Your task to perform on an android device: snooze an email in the gmail app Image 0: 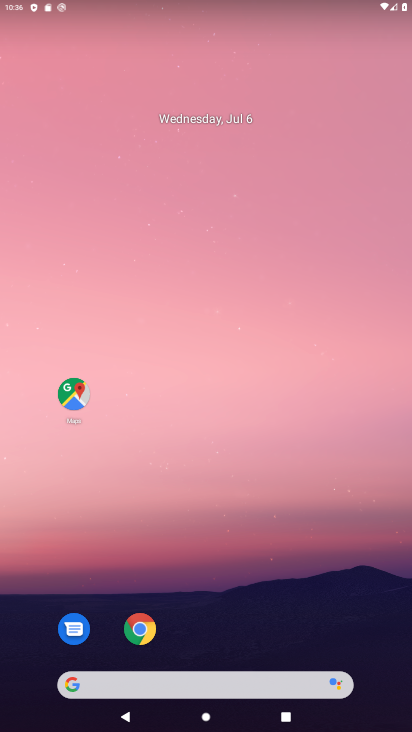
Step 0: drag from (230, 641) to (236, 7)
Your task to perform on an android device: snooze an email in the gmail app Image 1: 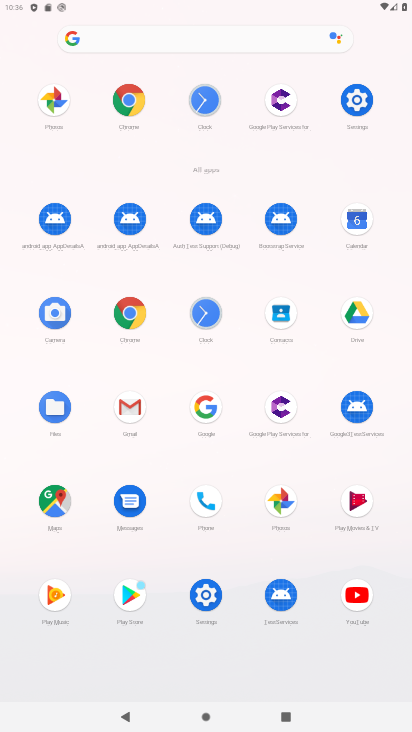
Step 1: click (131, 403)
Your task to perform on an android device: snooze an email in the gmail app Image 2: 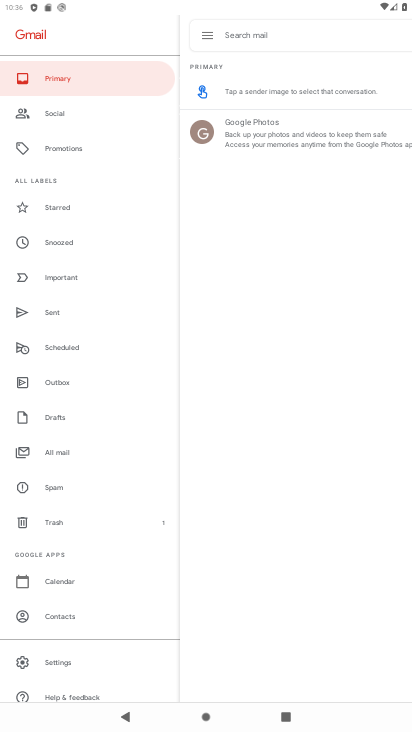
Step 2: click (202, 131)
Your task to perform on an android device: snooze an email in the gmail app Image 3: 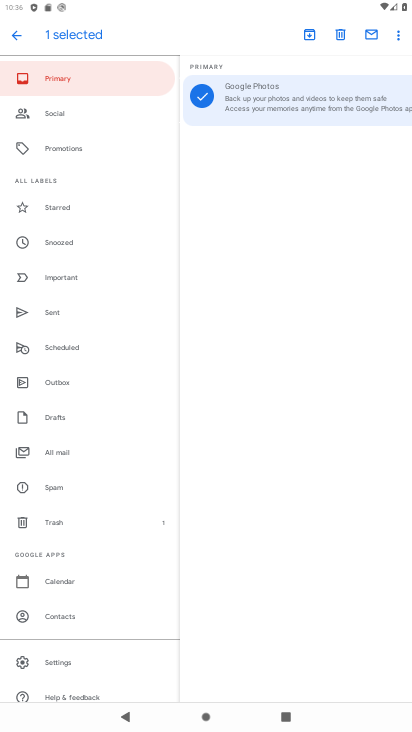
Step 3: click (398, 36)
Your task to perform on an android device: snooze an email in the gmail app Image 4: 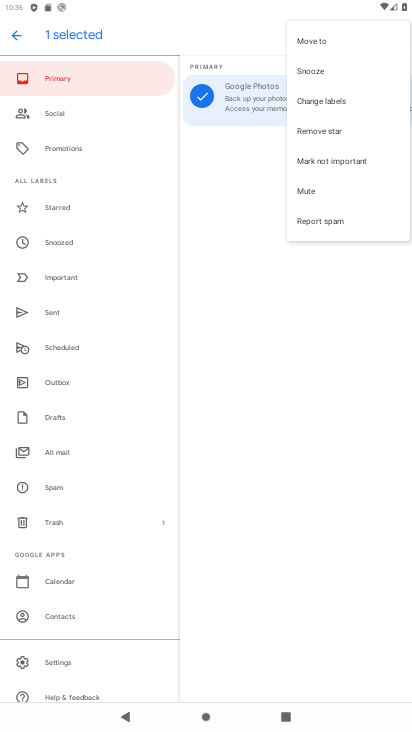
Step 4: click (315, 66)
Your task to perform on an android device: snooze an email in the gmail app Image 5: 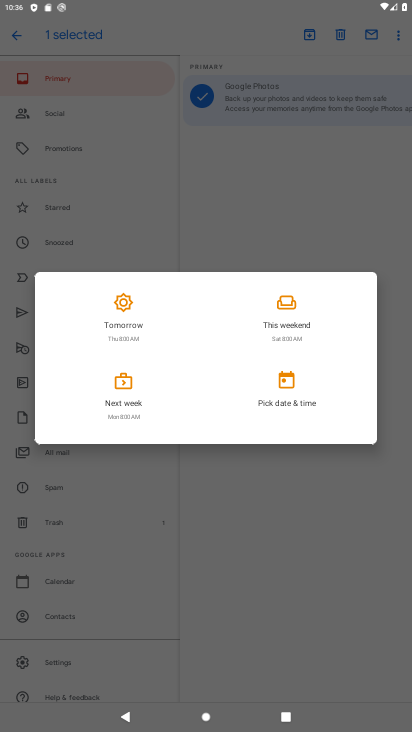
Step 5: click (288, 305)
Your task to perform on an android device: snooze an email in the gmail app Image 6: 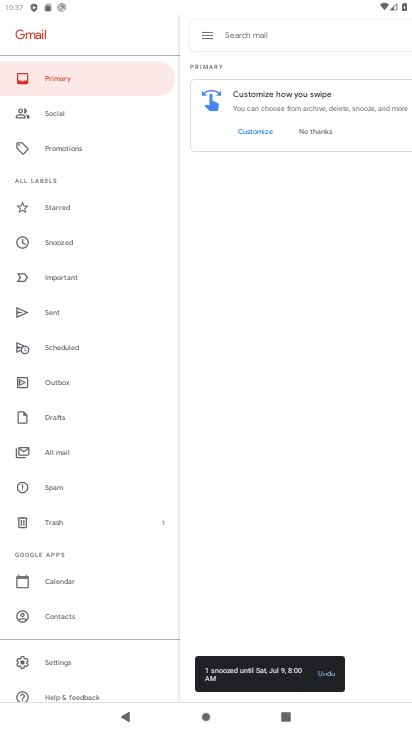
Step 6: task complete